Your task to perform on an android device: open app "Facebook Lite" (install if not already installed) and go to login screen Image 0: 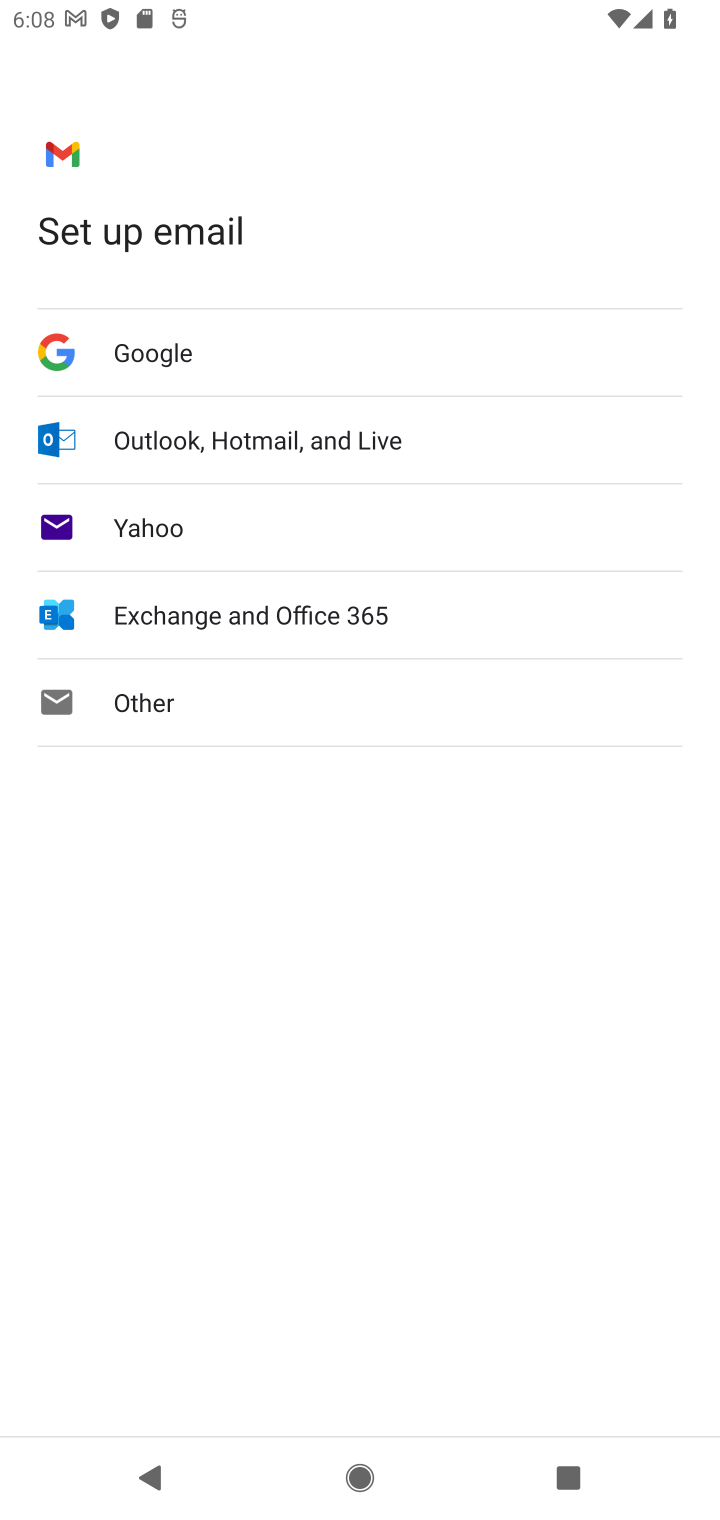
Step 0: press home button
Your task to perform on an android device: open app "Facebook Lite" (install if not already installed) and go to login screen Image 1: 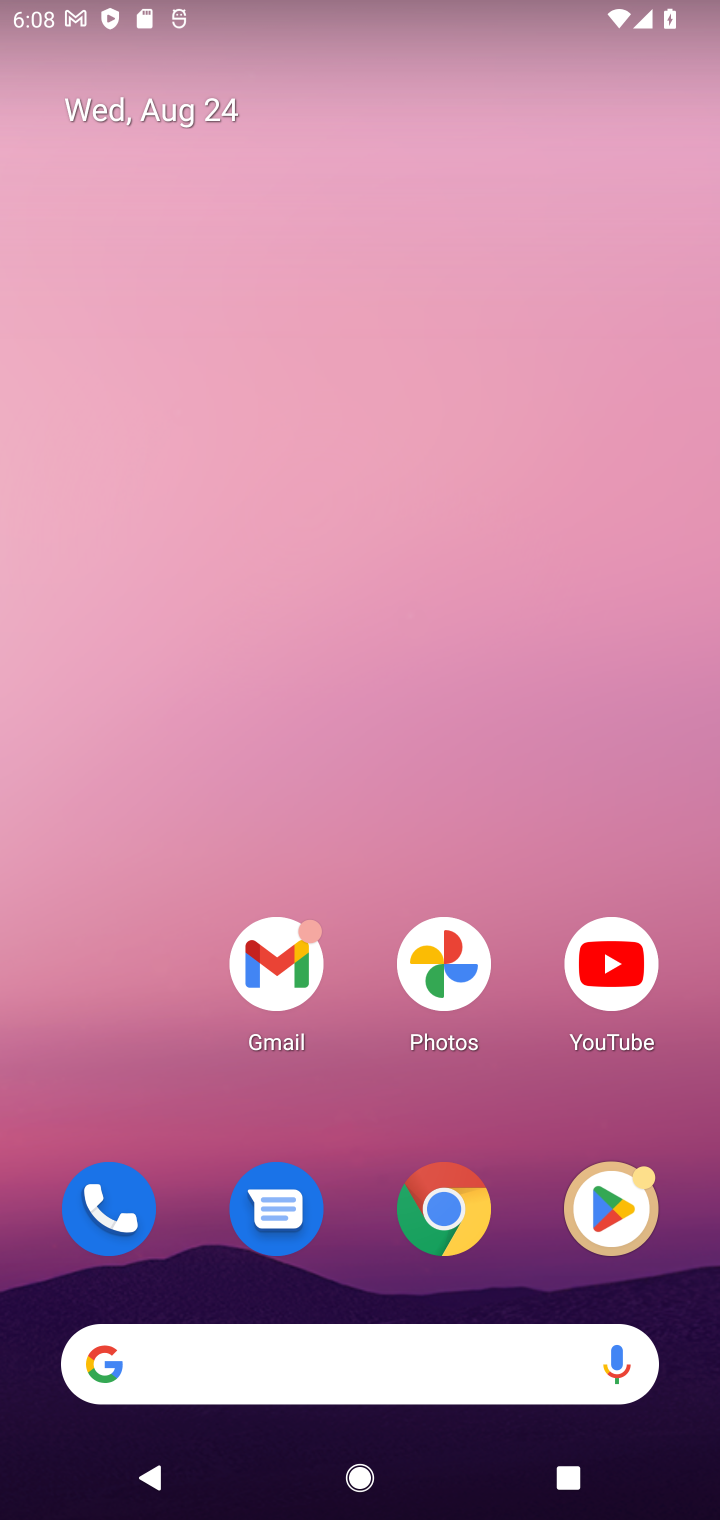
Step 1: drag from (242, 815) to (284, 309)
Your task to perform on an android device: open app "Facebook Lite" (install if not already installed) and go to login screen Image 2: 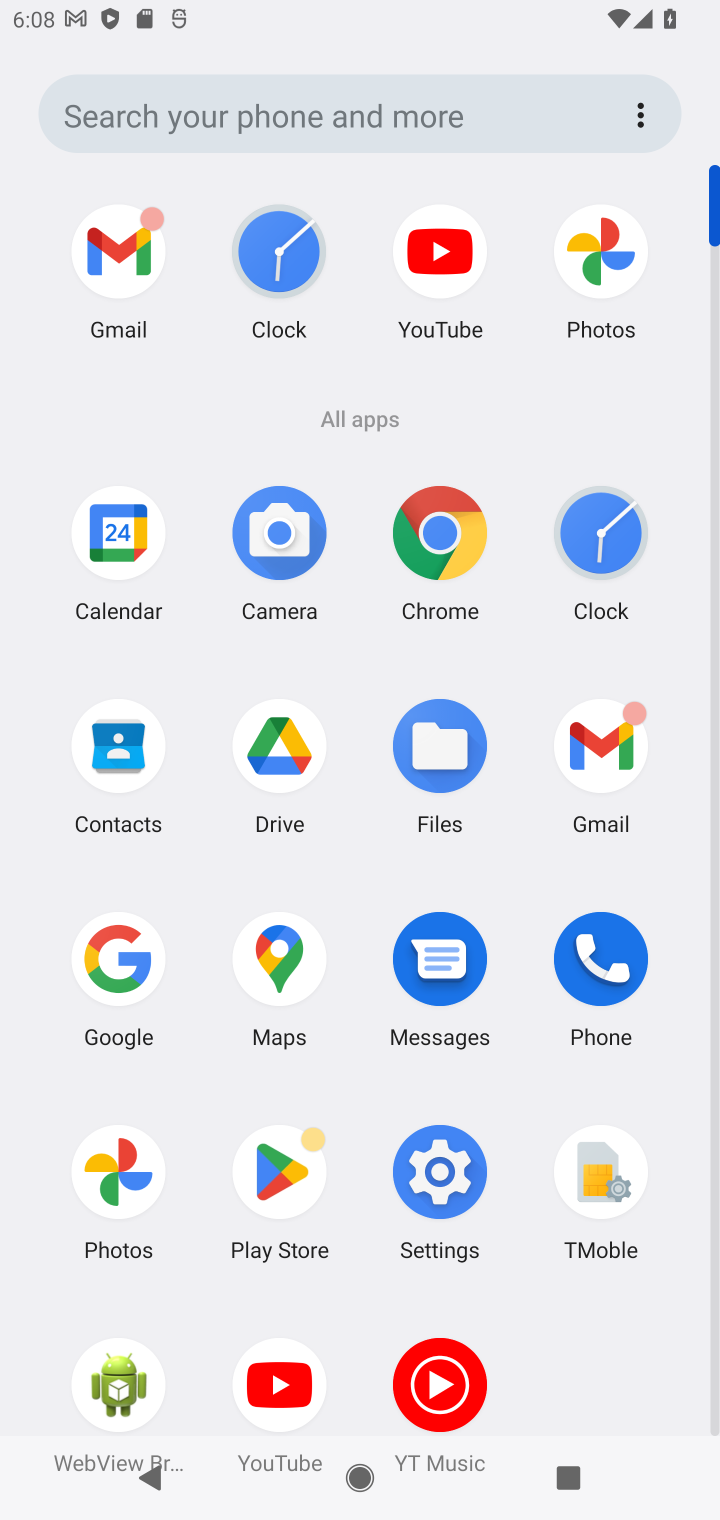
Step 2: drag from (581, 1164) to (551, 599)
Your task to perform on an android device: open app "Facebook Lite" (install if not already installed) and go to login screen Image 3: 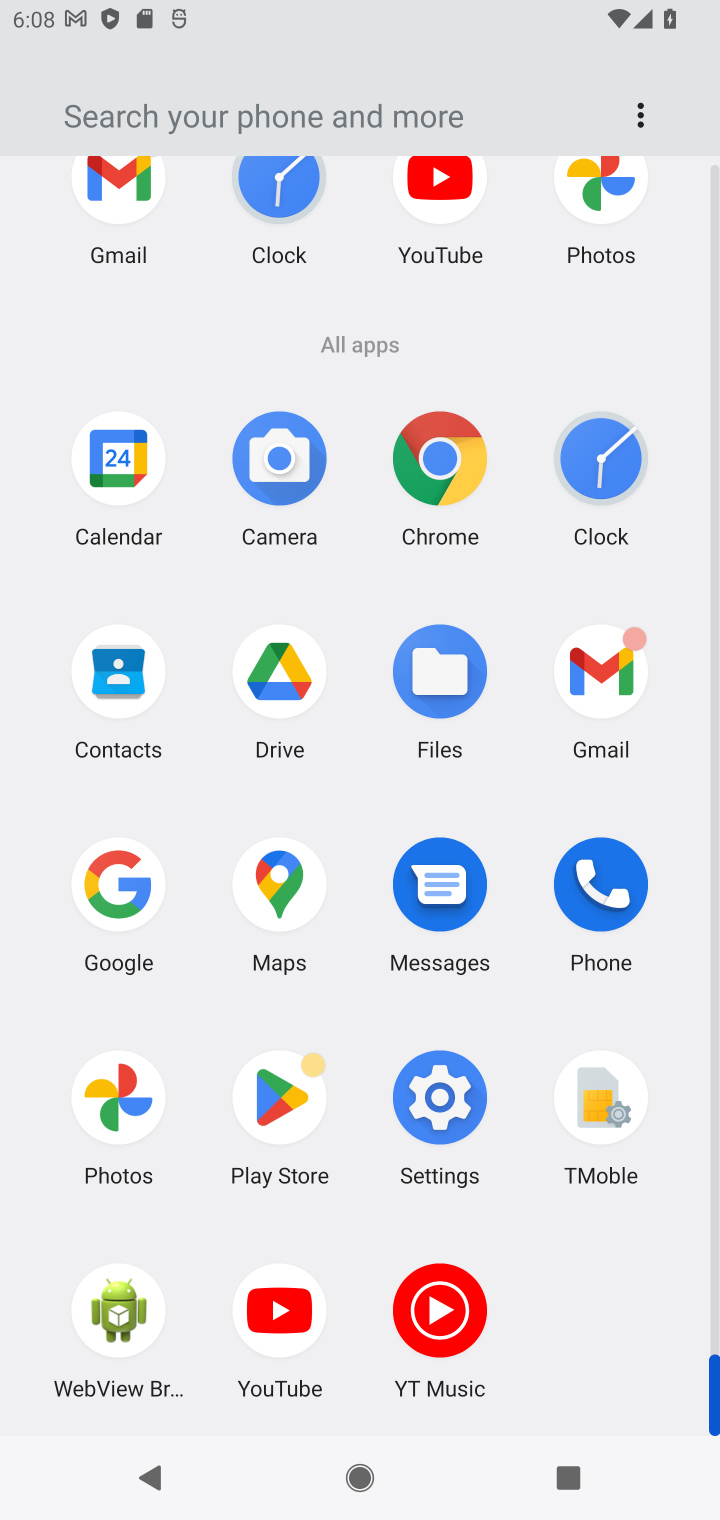
Step 3: click (265, 1099)
Your task to perform on an android device: open app "Facebook Lite" (install if not already installed) and go to login screen Image 4: 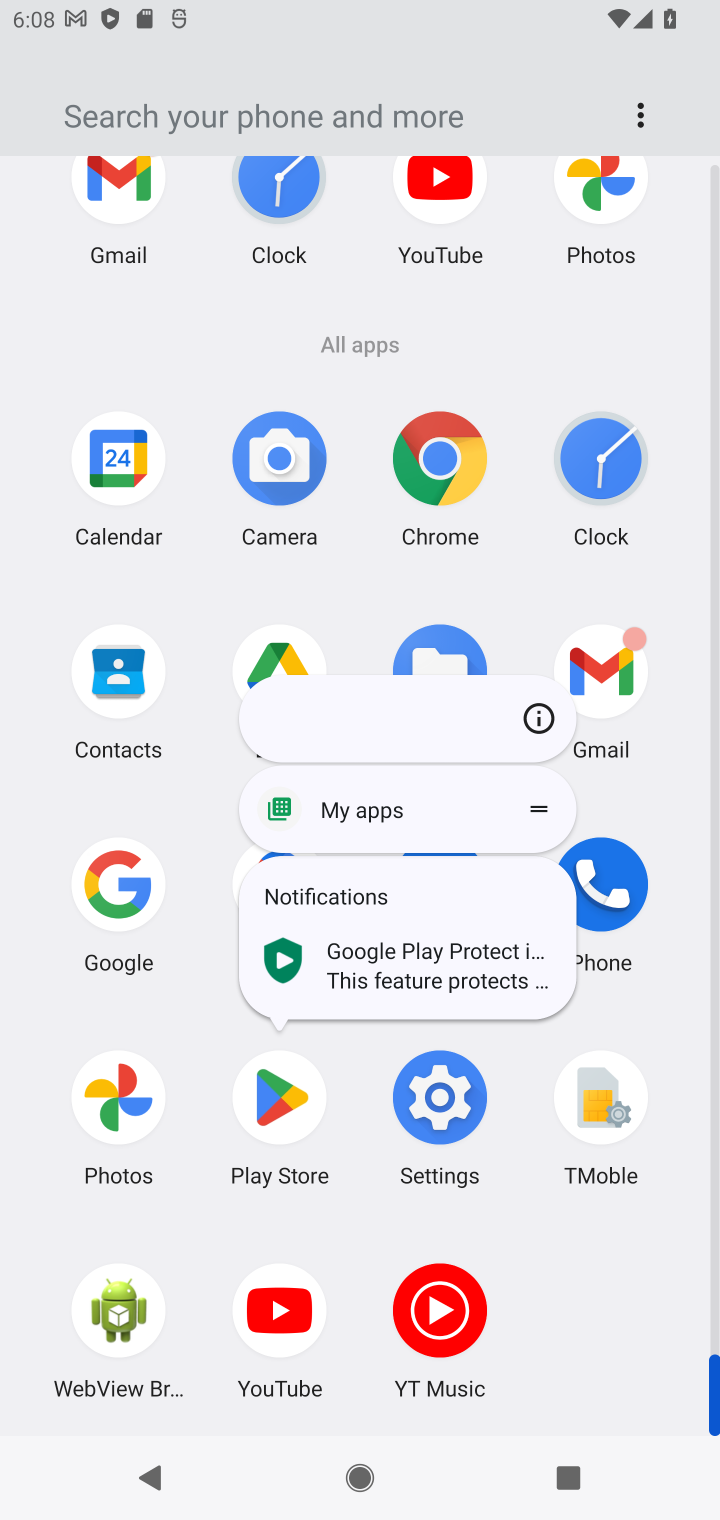
Step 4: click (251, 1117)
Your task to perform on an android device: open app "Facebook Lite" (install if not already installed) and go to login screen Image 5: 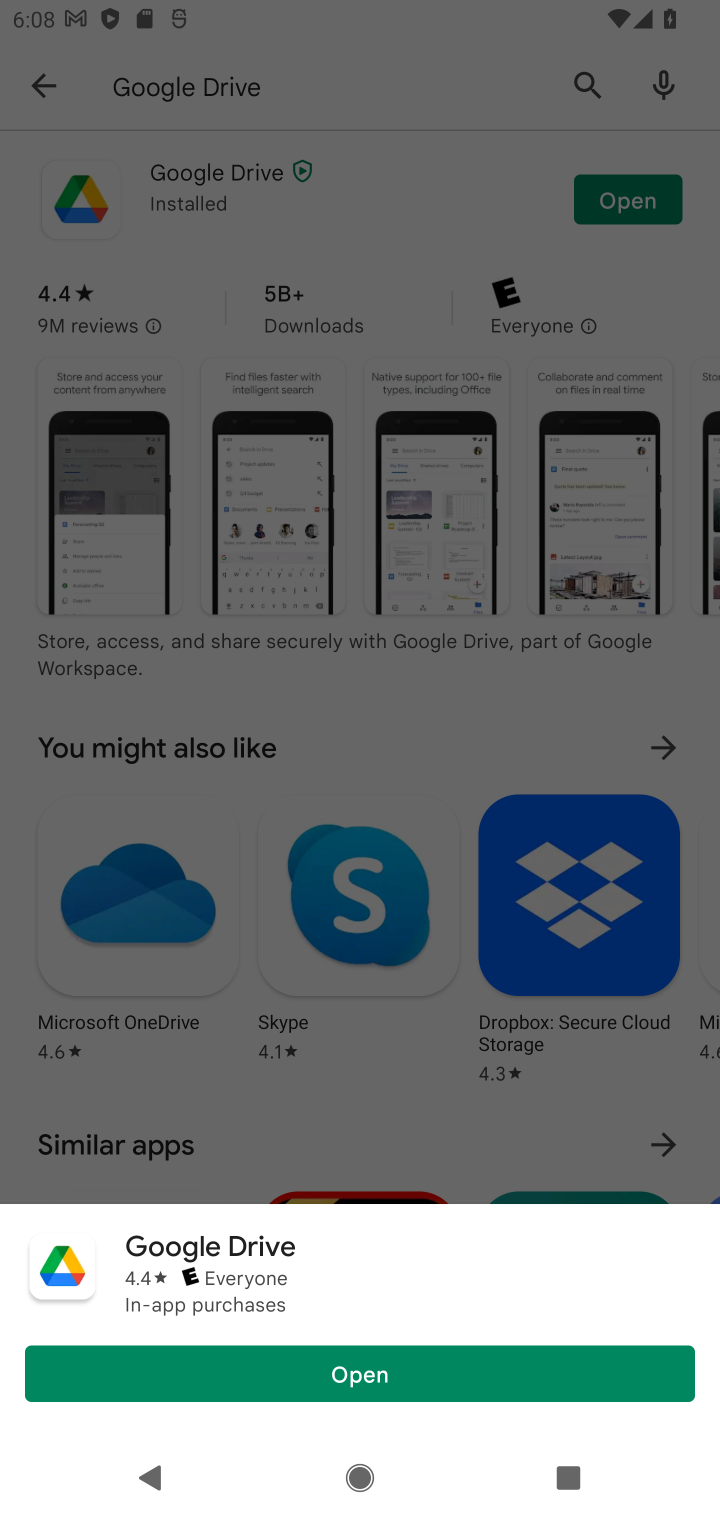
Step 5: press back button
Your task to perform on an android device: open app "Facebook Lite" (install if not already installed) and go to login screen Image 6: 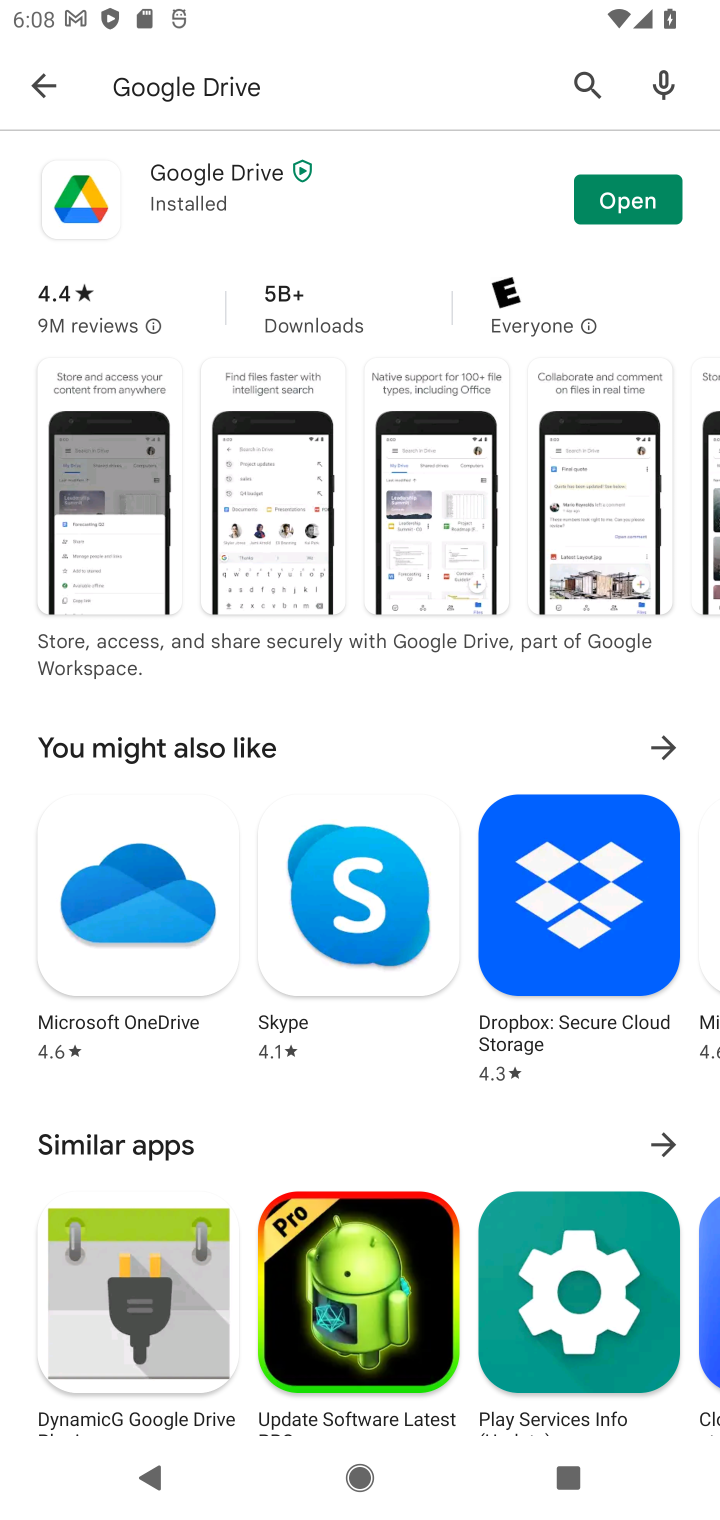
Step 6: press back button
Your task to perform on an android device: open app "Facebook Lite" (install if not already installed) and go to login screen Image 7: 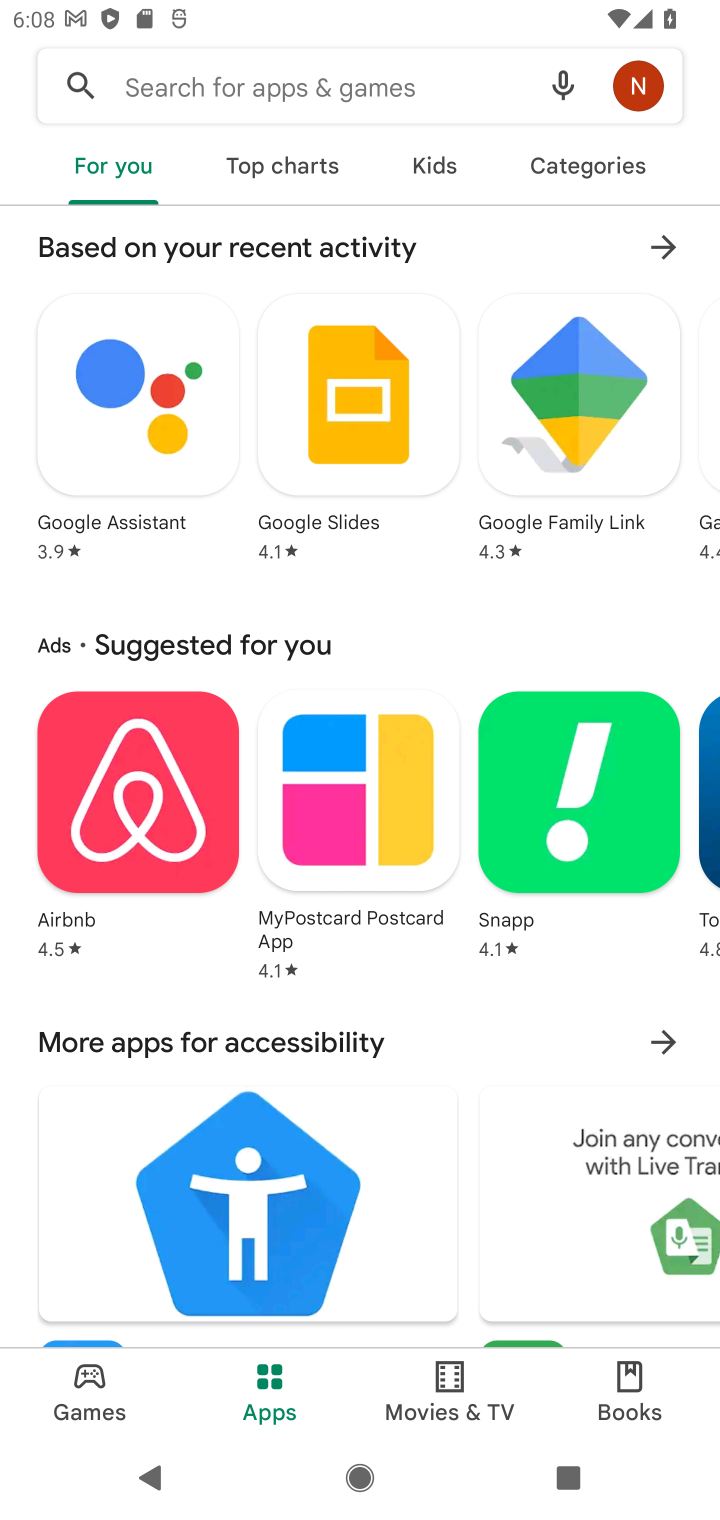
Step 7: click (237, 101)
Your task to perform on an android device: open app "Facebook Lite" (install if not already installed) and go to login screen Image 8: 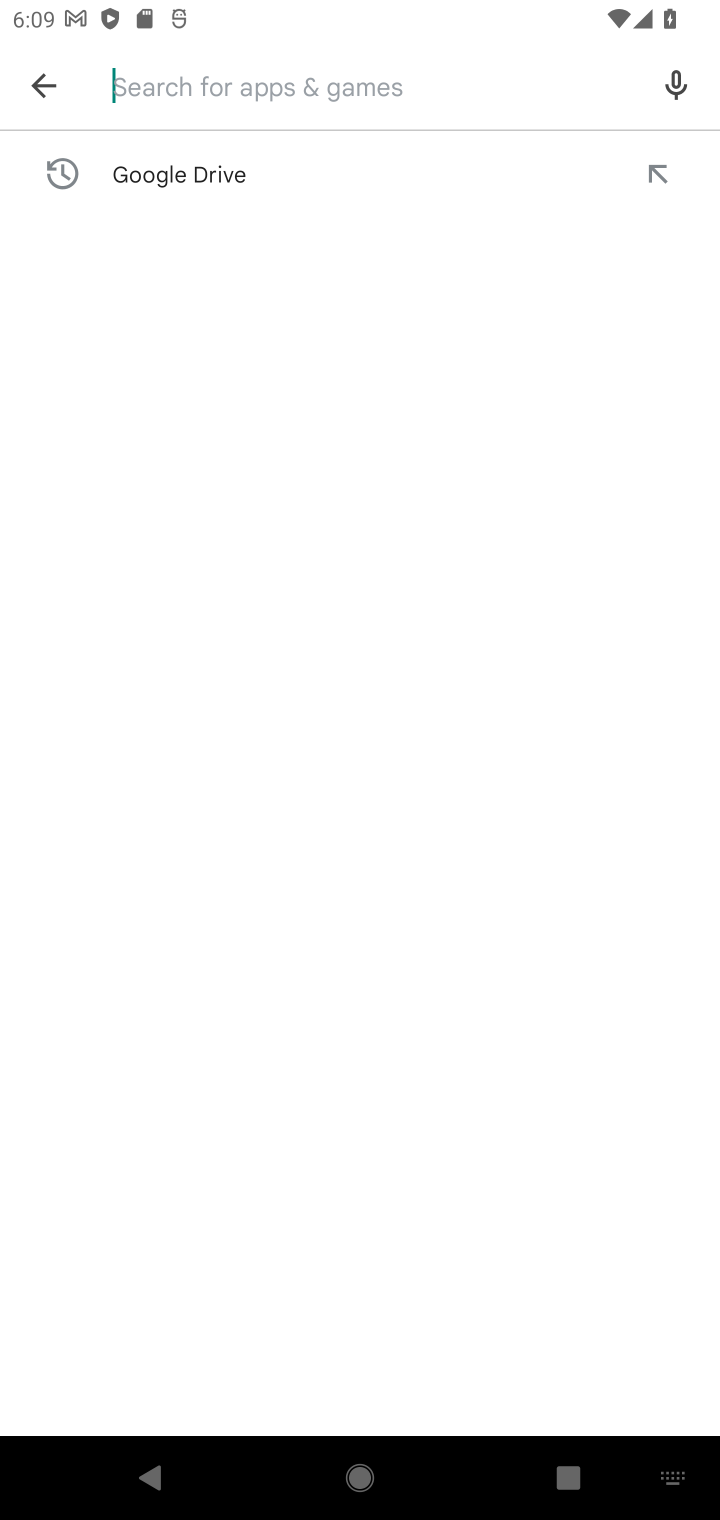
Step 8: type "Facebook Lite"
Your task to perform on an android device: open app "Facebook Lite" (install if not already installed) and go to login screen Image 9: 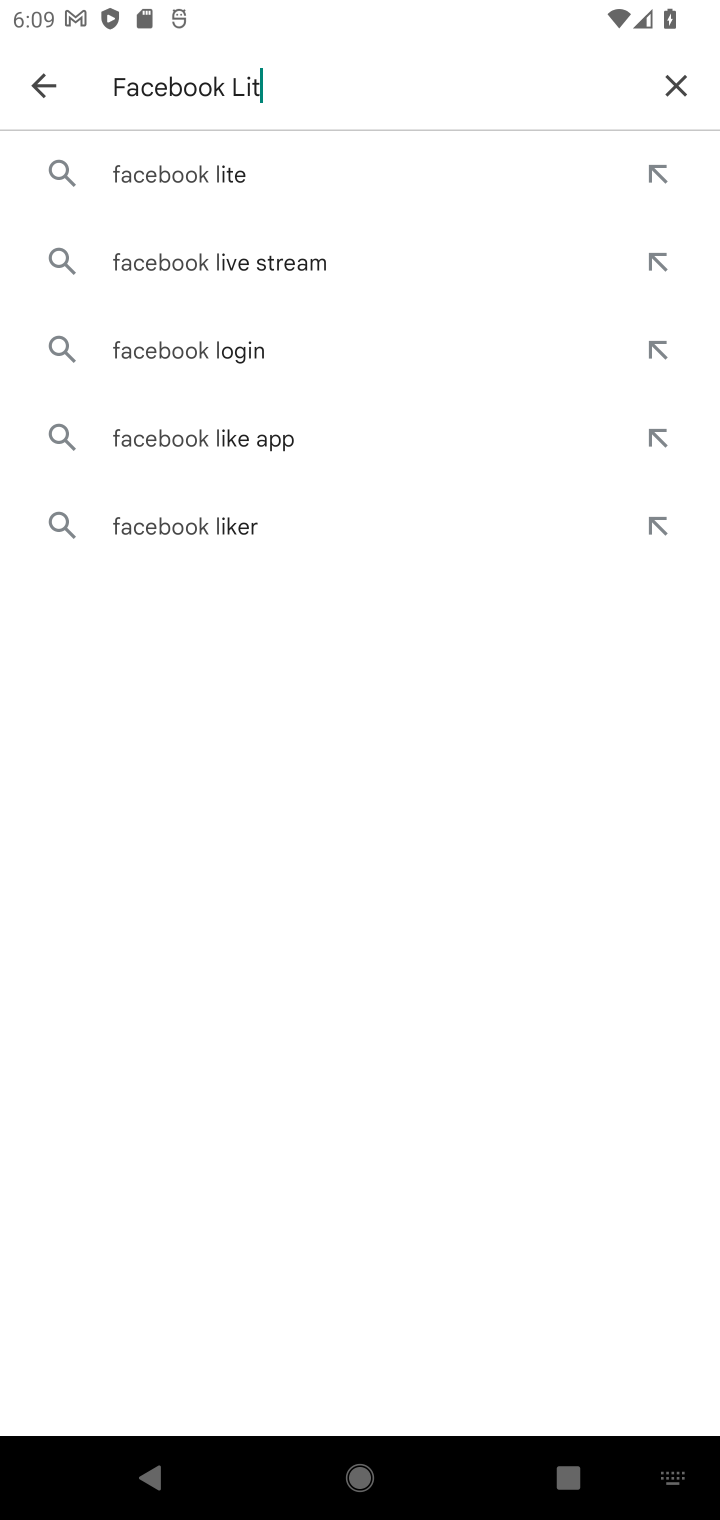
Step 9: press enter
Your task to perform on an android device: open app "Facebook Lite" (install if not already installed) and go to login screen Image 10: 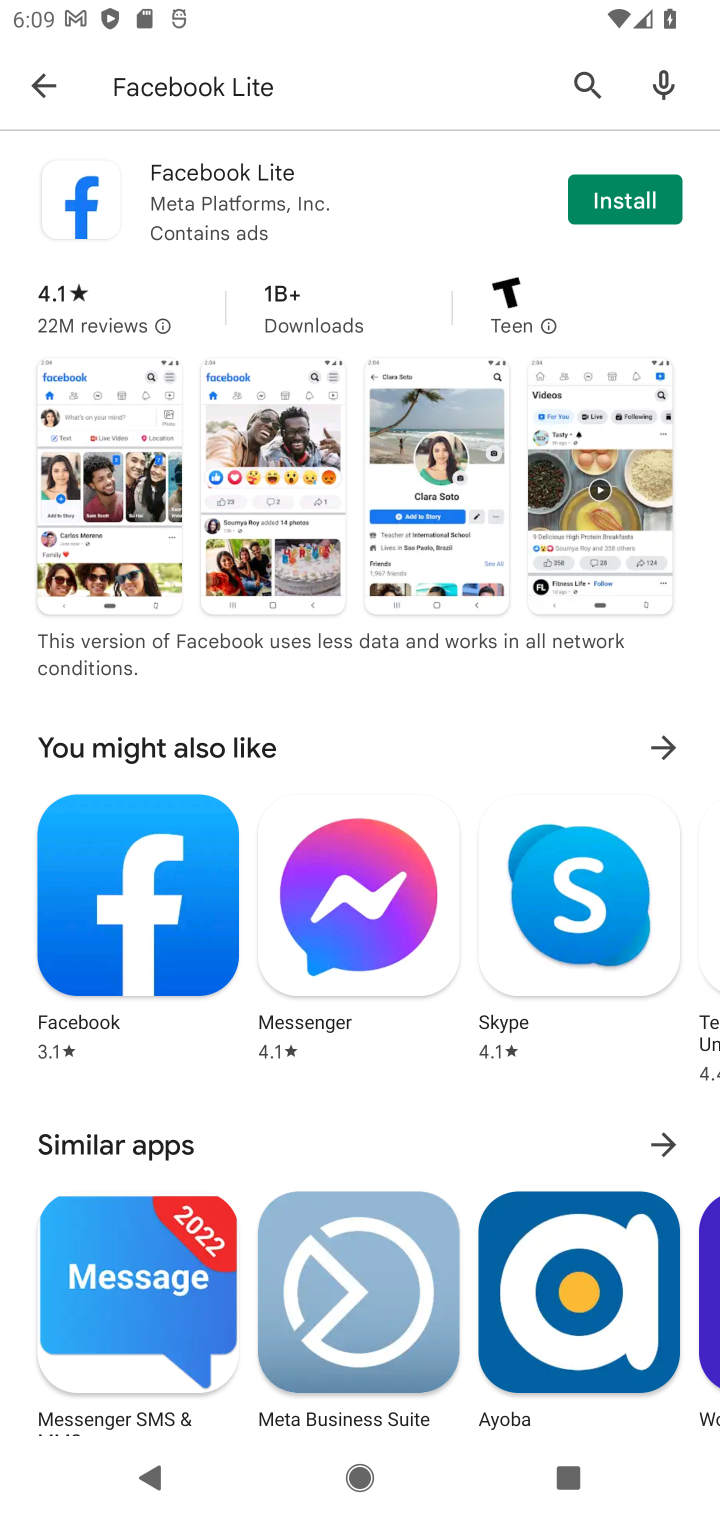
Step 10: click (594, 206)
Your task to perform on an android device: open app "Facebook Lite" (install if not already installed) and go to login screen Image 11: 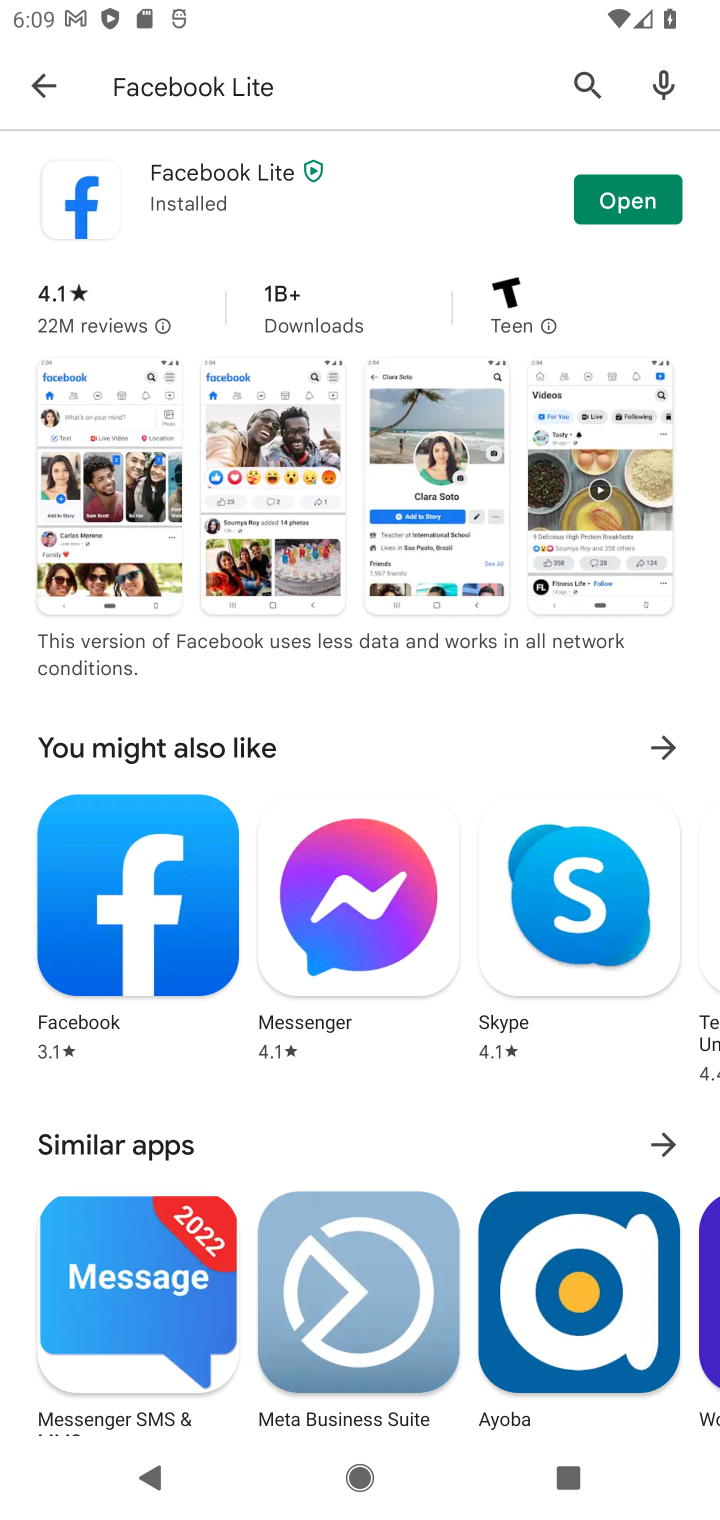
Step 11: click (611, 200)
Your task to perform on an android device: open app "Facebook Lite" (install if not already installed) and go to login screen Image 12: 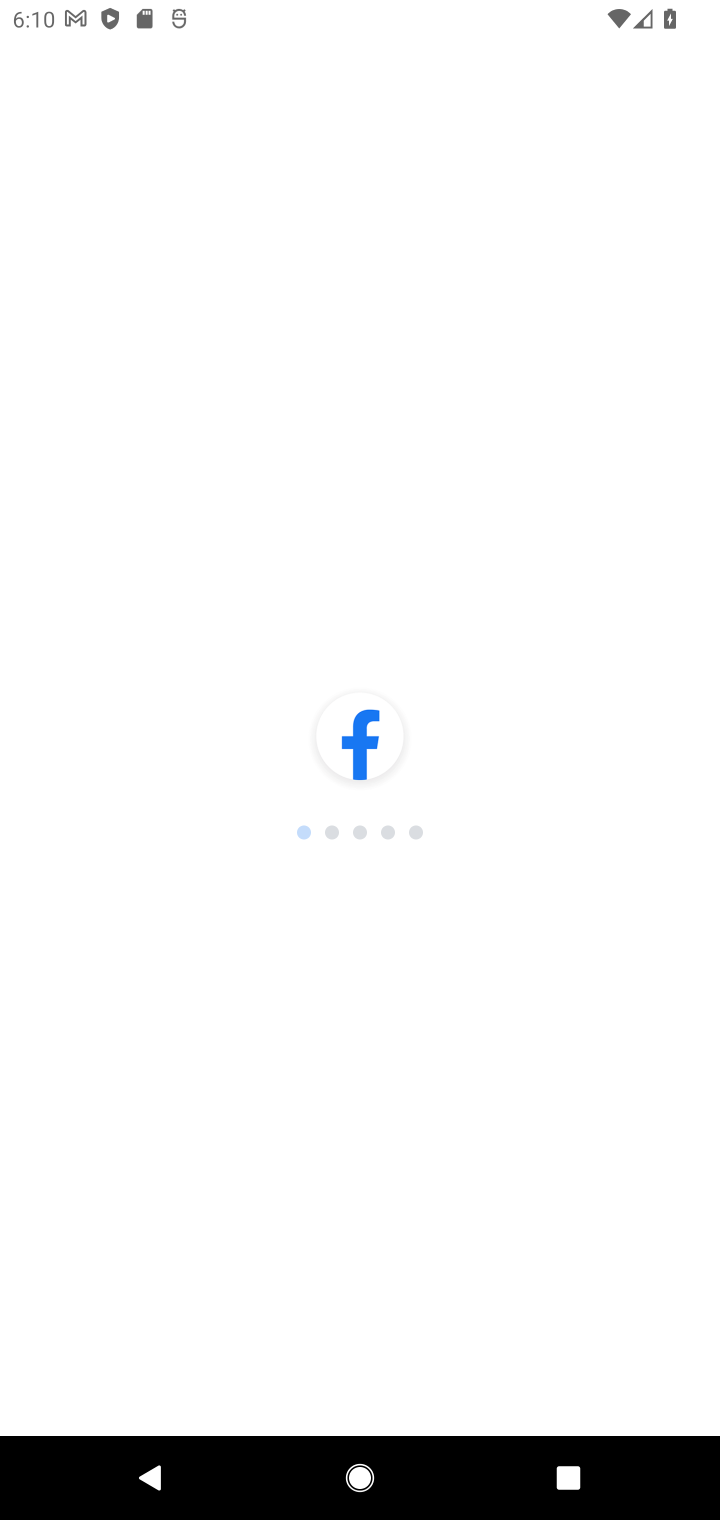
Step 12: task complete